Your task to perform on an android device: Open Google Maps Image 0: 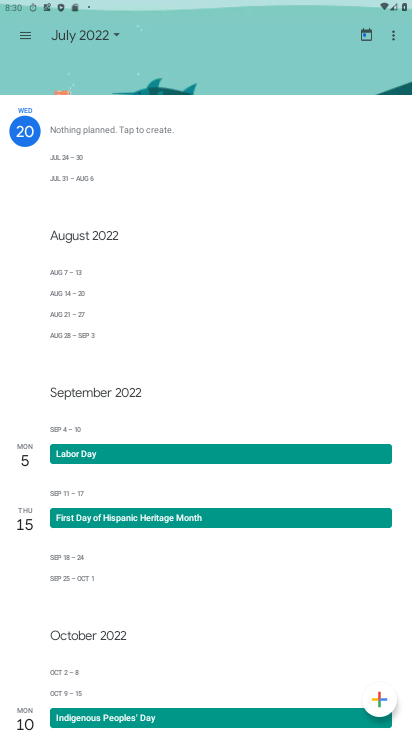
Step 0: press home button
Your task to perform on an android device: Open Google Maps Image 1: 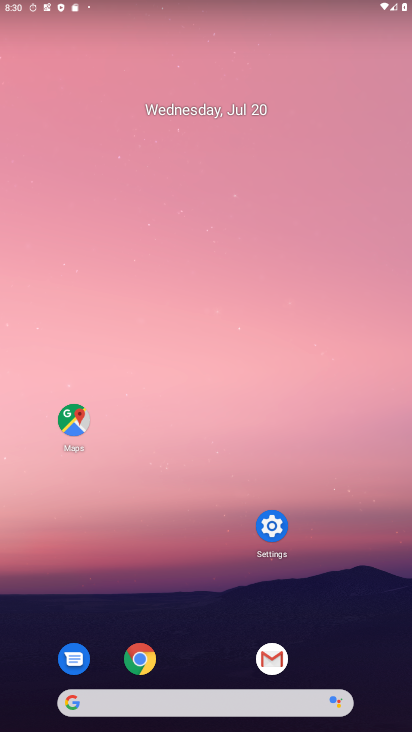
Step 1: click (60, 407)
Your task to perform on an android device: Open Google Maps Image 2: 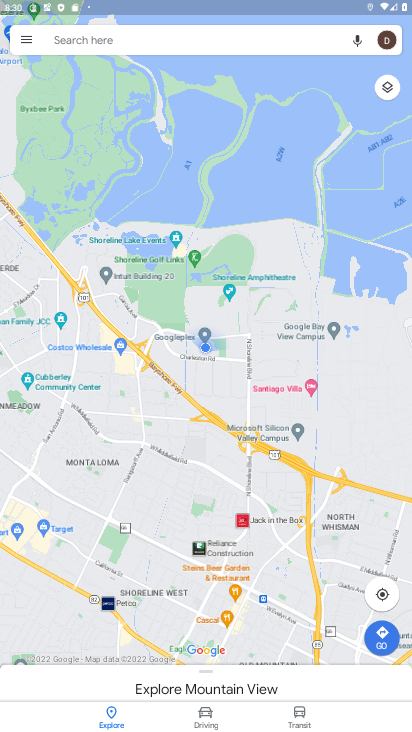
Step 2: task complete